Your task to perform on an android device: Clear all items from cart on costco.com. Add "usb-c to usb-a" to the cart on costco.com, then select checkout. Image 0: 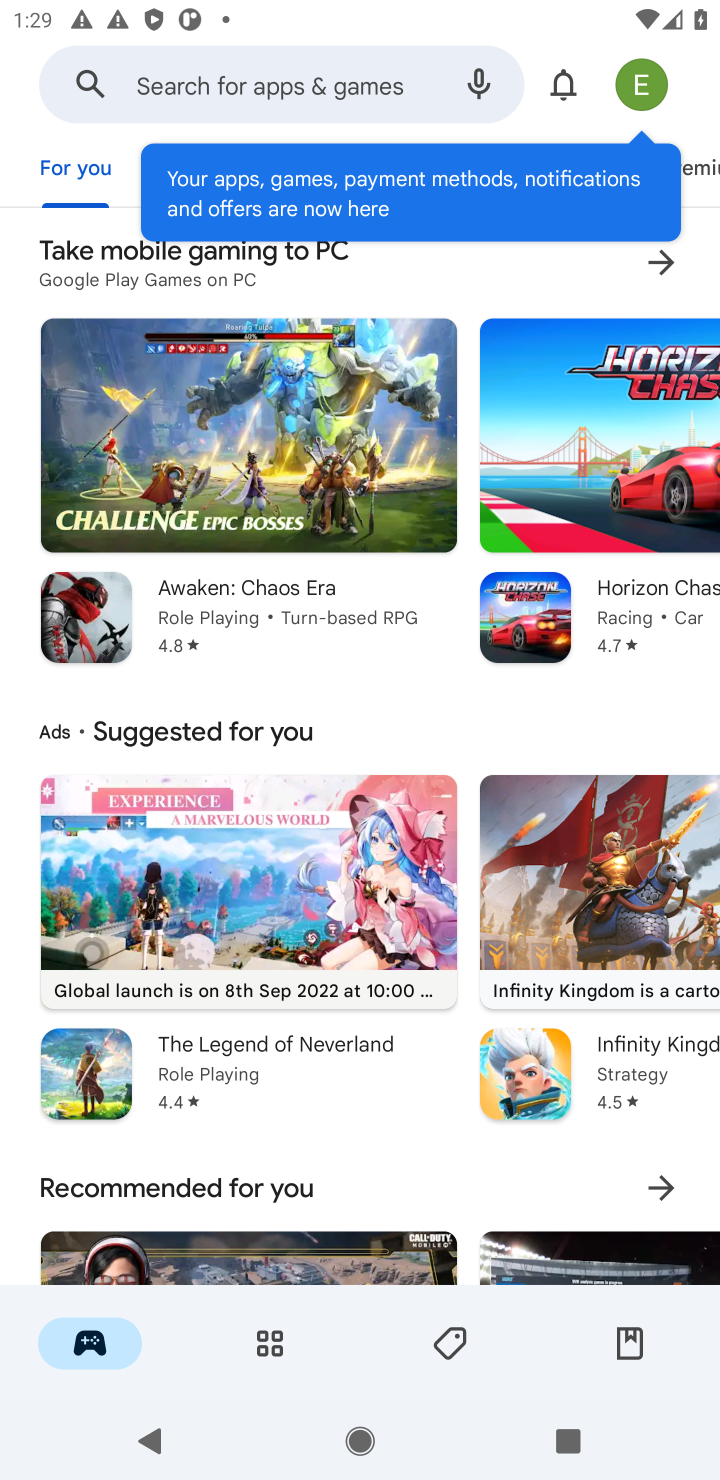
Step 0: press home button
Your task to perform on an android device: Clear all items from cart on costco.com. Add "usb-c to usb-a" to the cart on costco.com, then select checkout. Image 1: 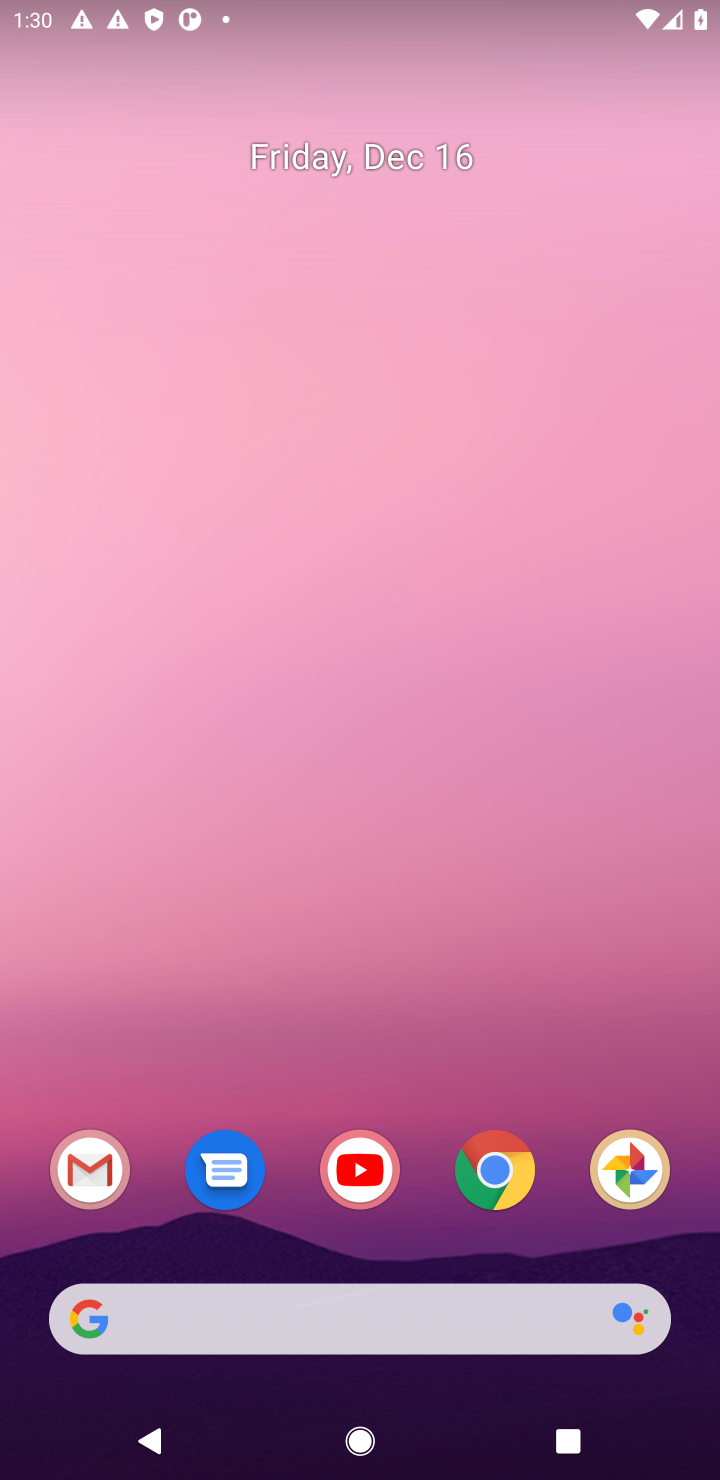
Step 1: click (500, 1185)
Your task to perform on an android device: Clear all items from cart on costco.com. Add "usb-c to usb-a" to the cart on costco.com, then select checkout. Image 2: 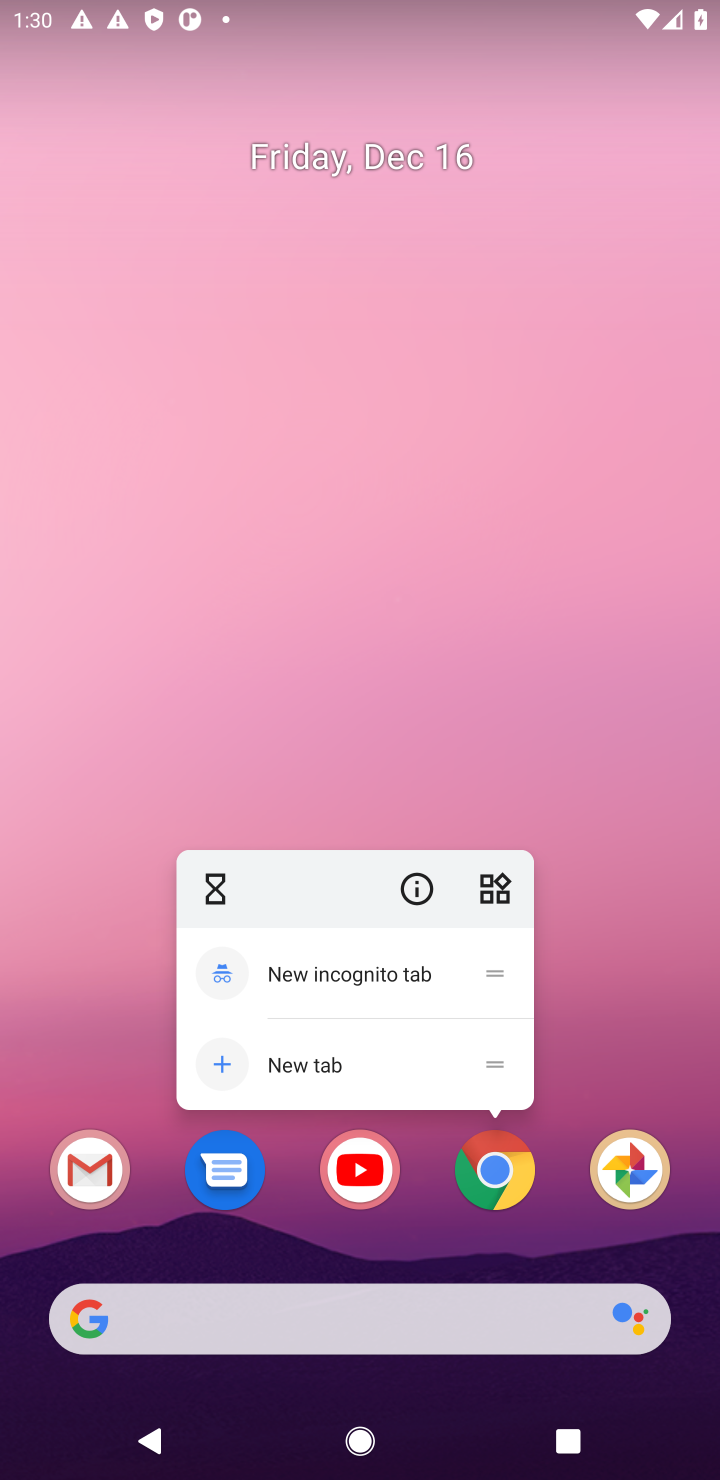
Step 2: click (500, 1185)
Your task to perform on an android device: Clear all items from cart on costco.com. Add "usb-c to usb-a" to the cart on costco.com, then select checkout. Image 3: 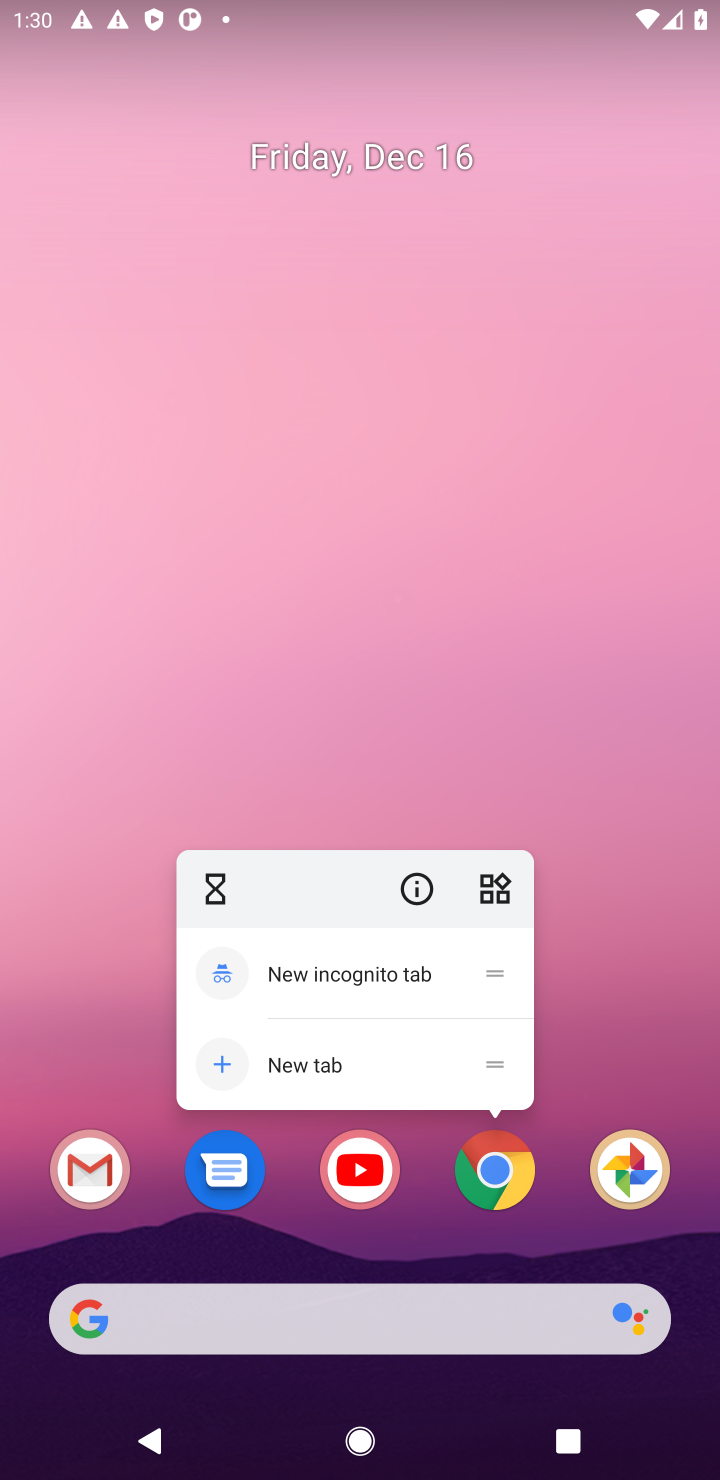
Step 3: click (504, 1177)
Your task to perform on an android device: Clear all items from cart on costco.com. Add "usb-c to usb-a" to the cart on costco.com, then select checkout. Image 4: 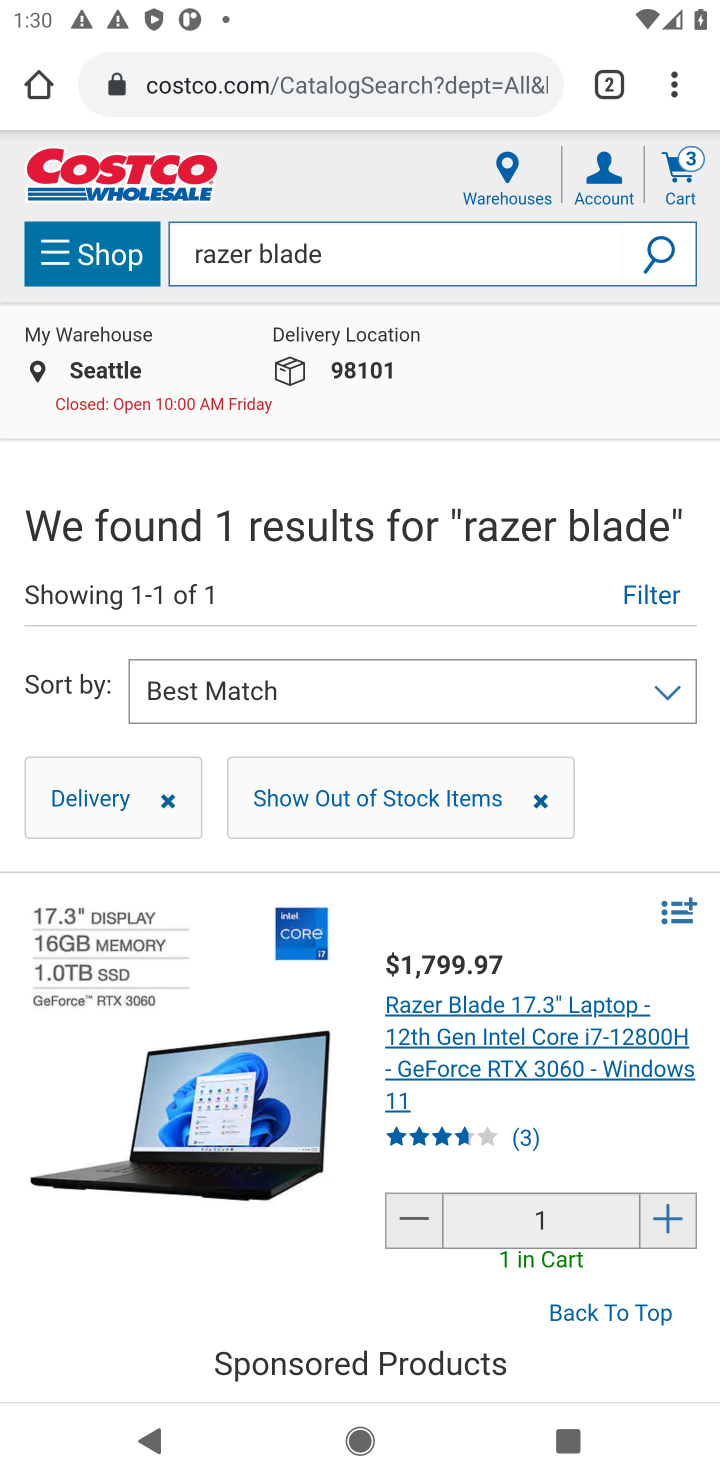
Step 4: click (682, 169)
Your task to perform on an android device: Clear all items from cart on costco.com. Add "usb-c to usb-a" to the cart on costco.com, then select checkout. Image 5: 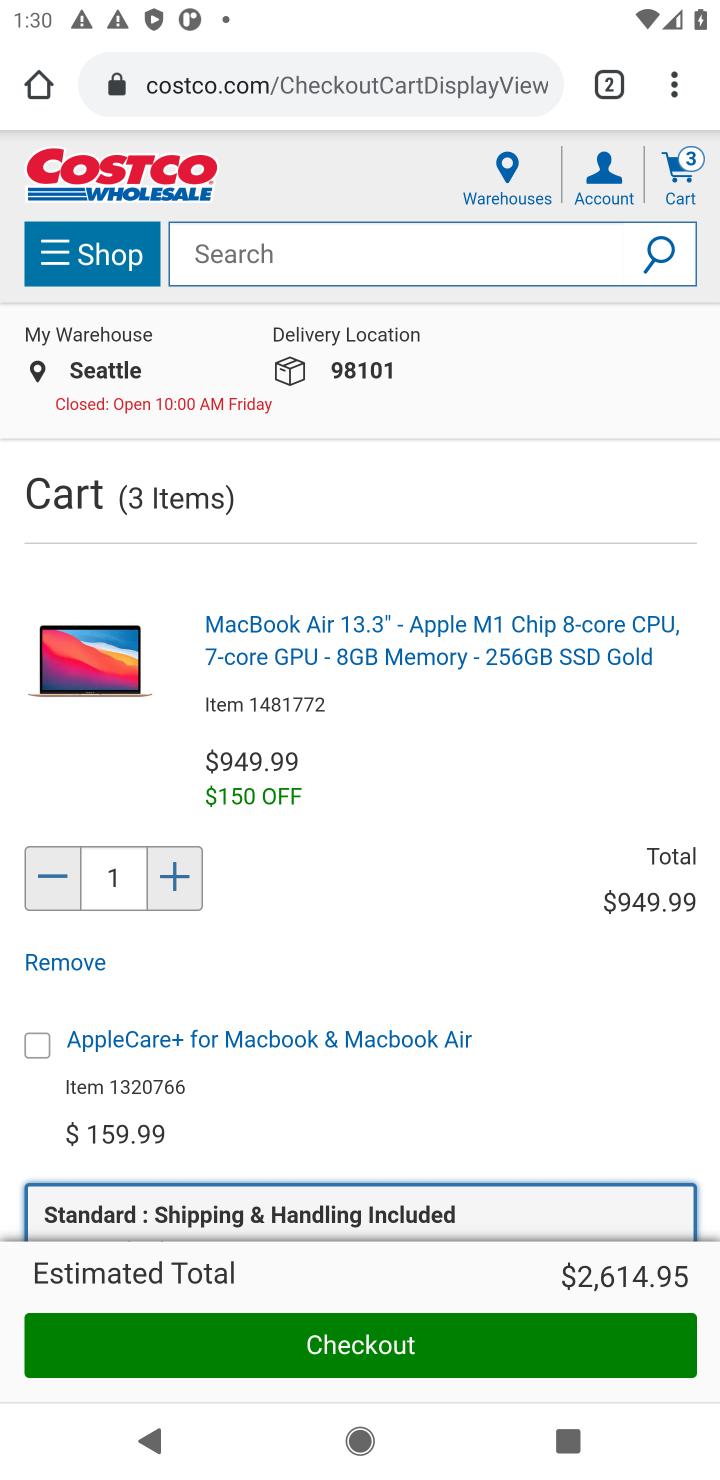
Step 5: drag from (490, 1017) to (504, 436)
Your task to perform on an android device: Clear all items from cart on costco.com. Add "usb-c to usb-a" to the cart on costco.com, then select checkout. Image 6: 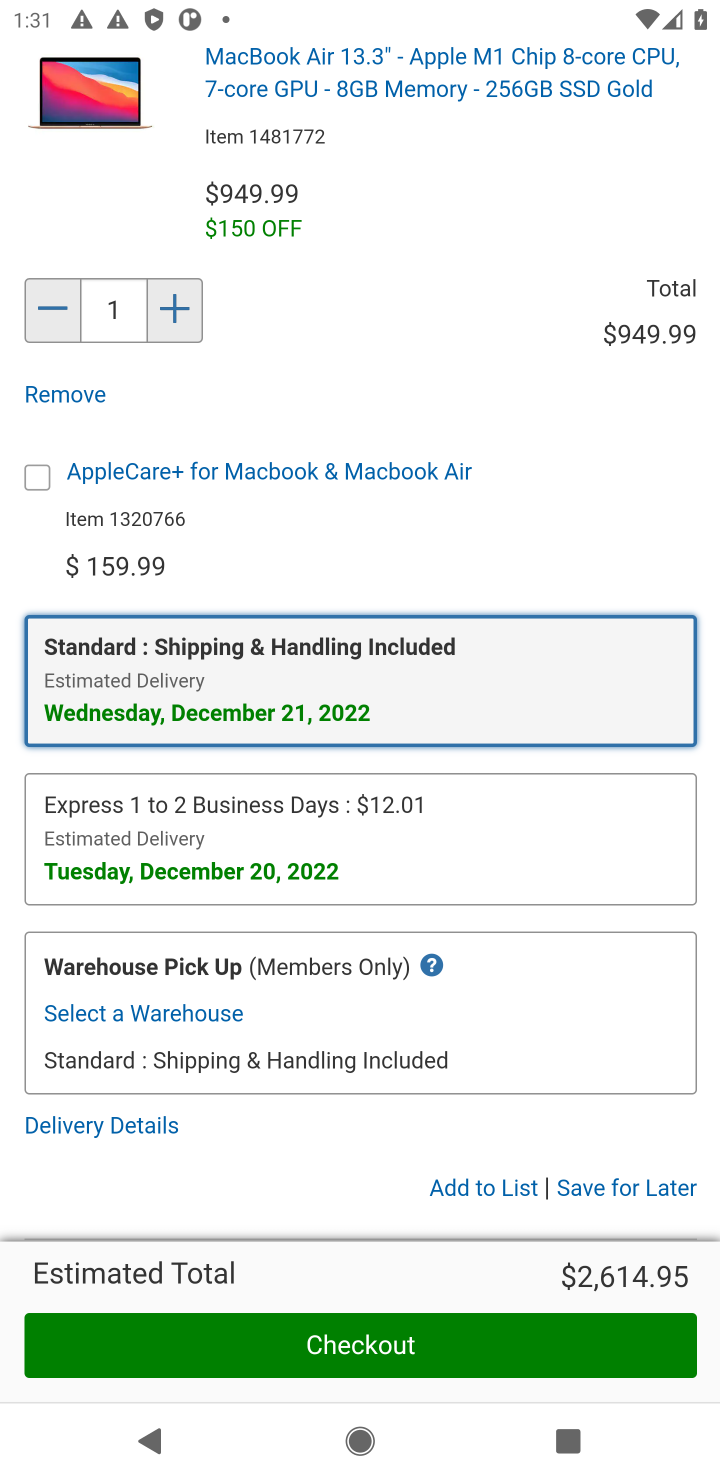
Step 6: click (591, 1188)
Your task to perform on an android device: Clear all items from cart on costco.com. Add "usb-c to usb-a" to the cart on costco.com, then select checkout. Image 7: 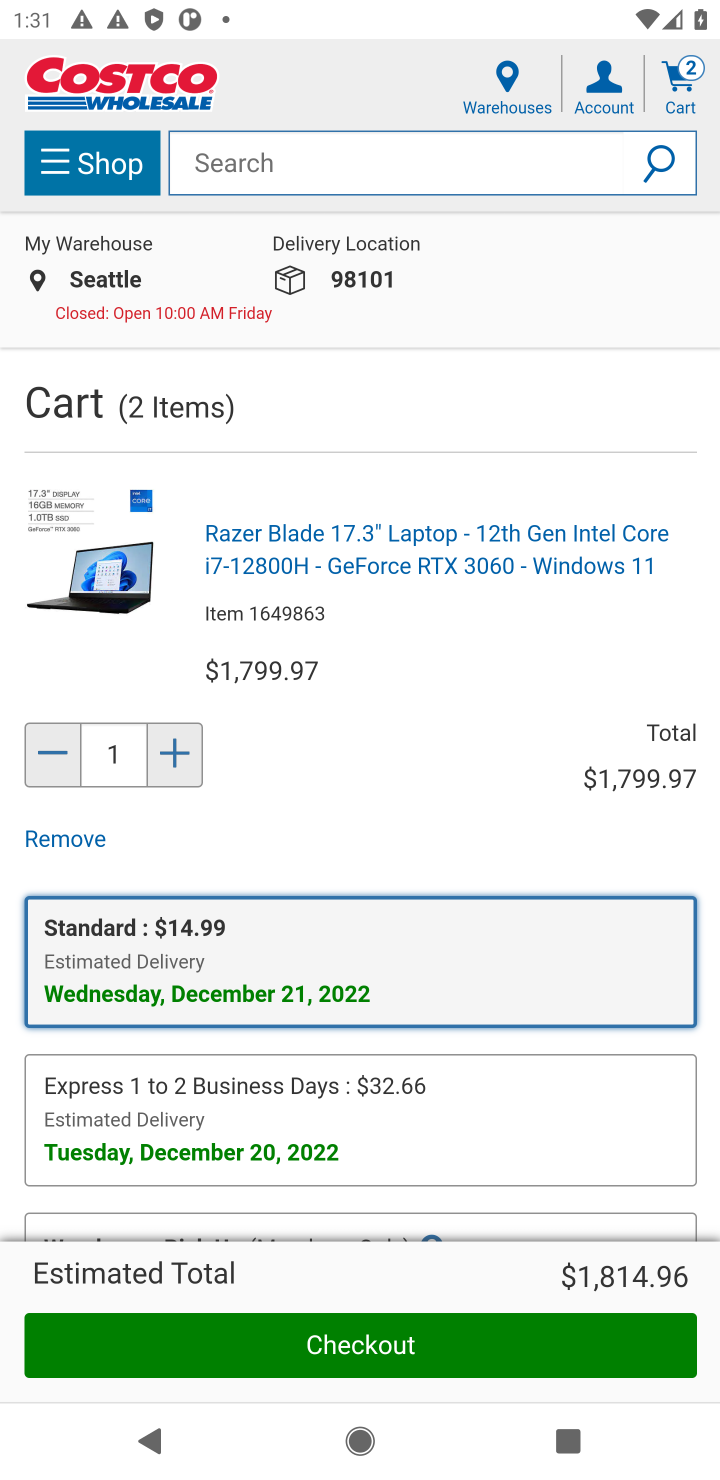
Step 7: drag from (496, 1134) to (475, 767)
Your task to perform on an android device: Clear all items from cart on costco.com. Add "usb-c to usb-a" to the cart on costco.com, then select checkout. Image 8: 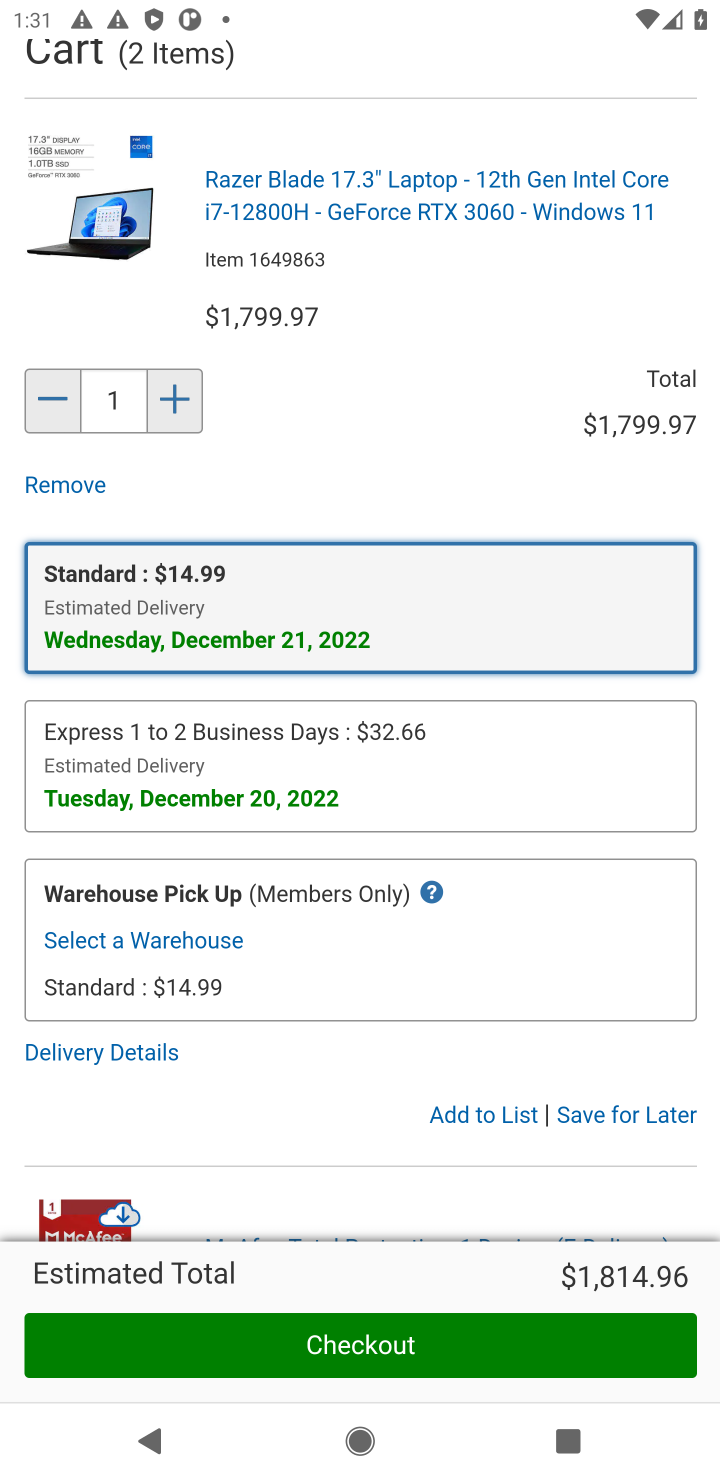
Step 8: click (615, 1112)
Your task to perform on an android device: Clear all items from cart on costco.com. Add "usb-c to usb-a" to the cart on costco.com, then select checkout. Image 9: 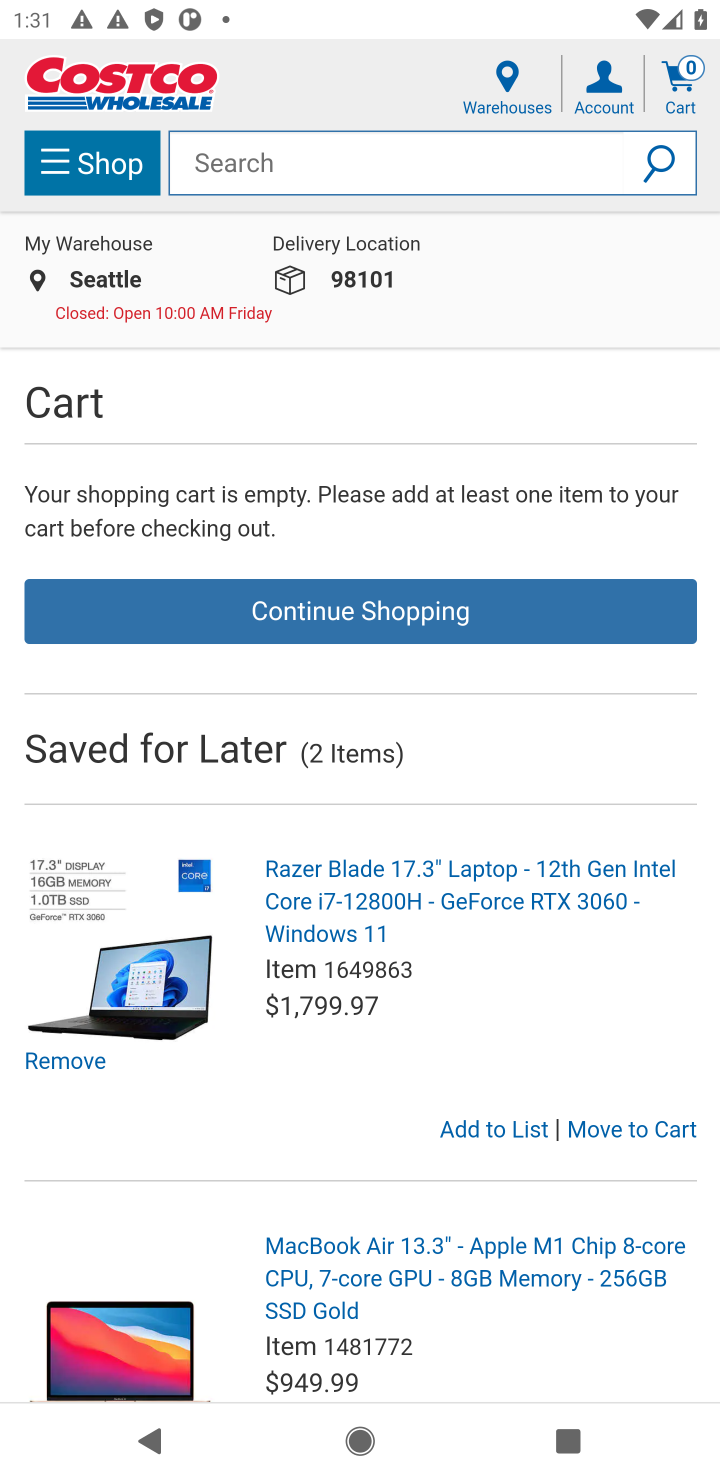
Step 9: click (293, 159)
Your task to perform on an android device: Clear all items from cart on costco.com. Add "usb-c to usb-a" to the cart on costco.com, then select checkout. Image 10: 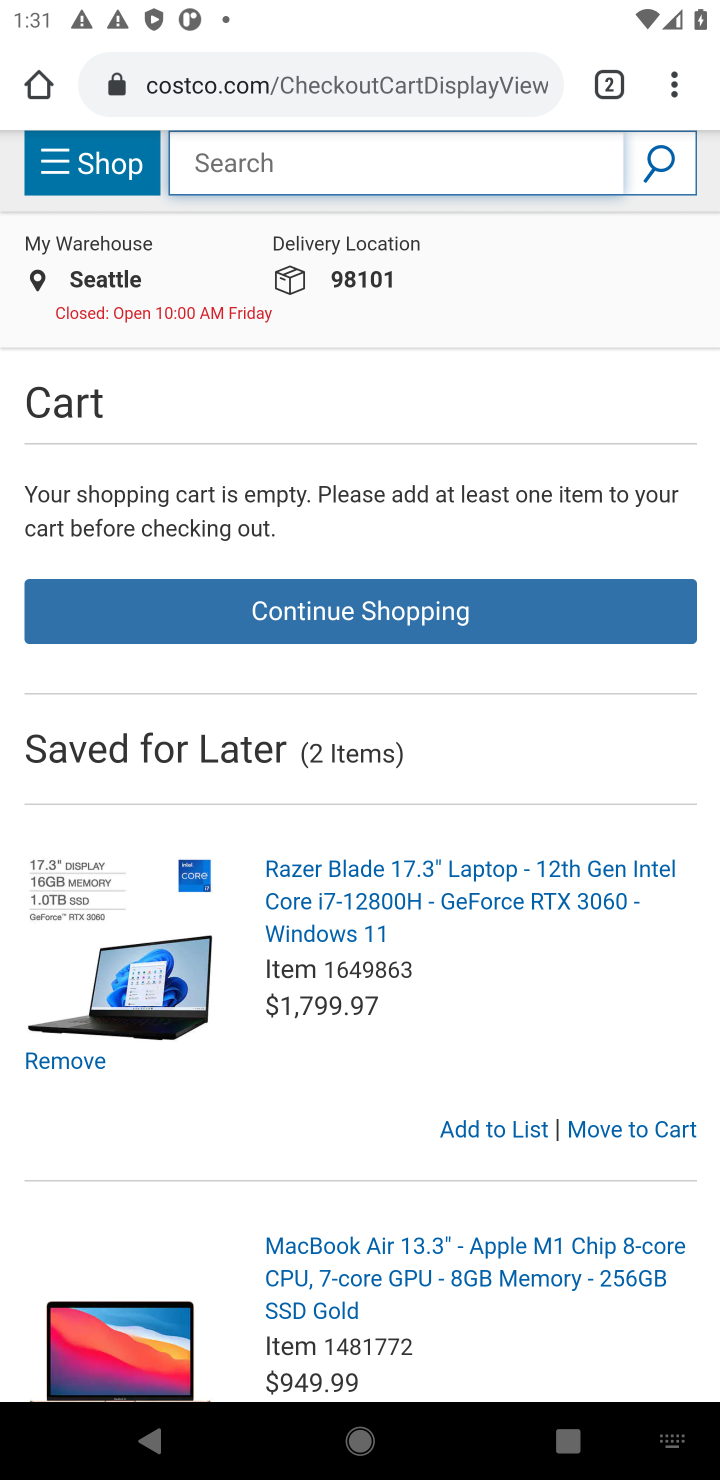
Step 10: type "usb-c to usb-a"
Your task to perform on an android device: Clear all items from cart on costco.com. Add "usb-c to usb-a" to the cart on costco.com, then select checkout. Image 11: 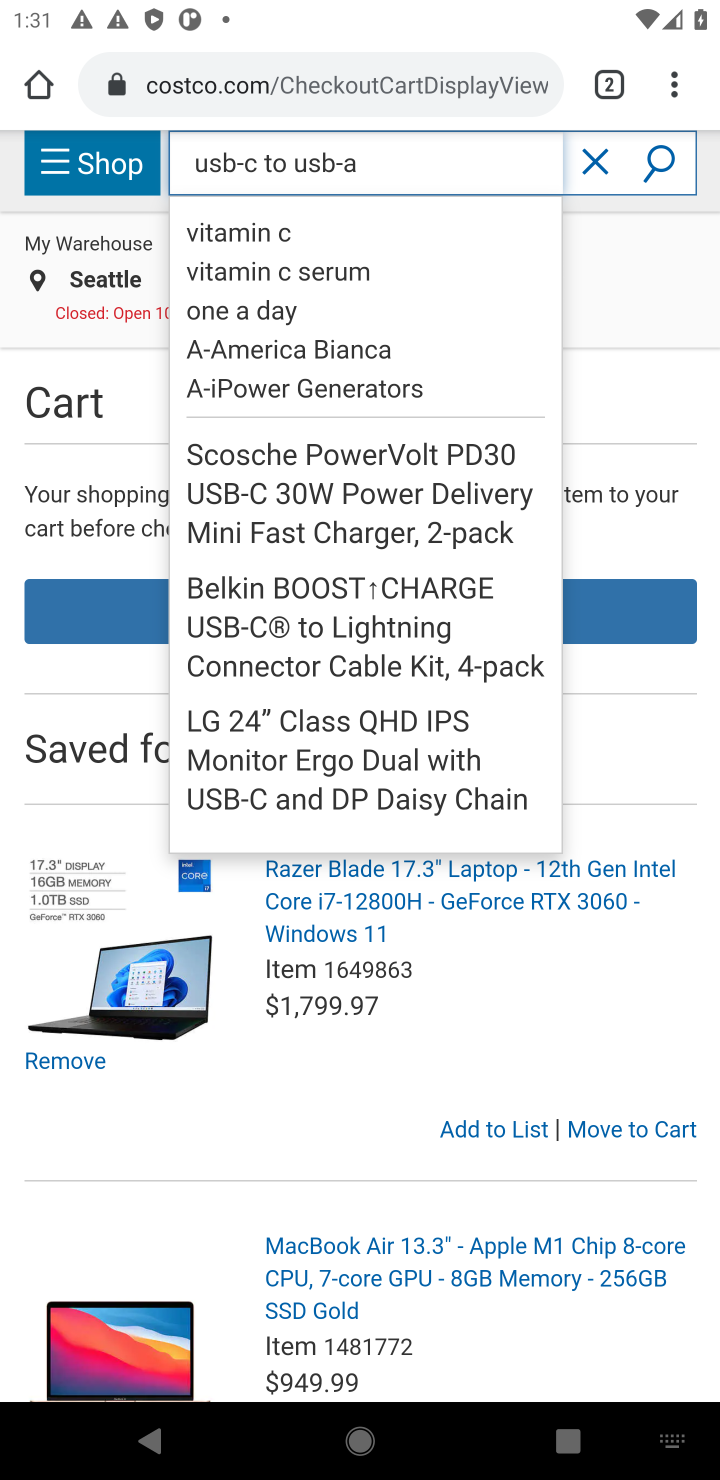
Step 11: click (662, 164)
Your task to perform on an android device: Clear all items from cart on costco.com. Add "usb-c to usb-a" to the cart on costco.com, then select checkout. Image 12: 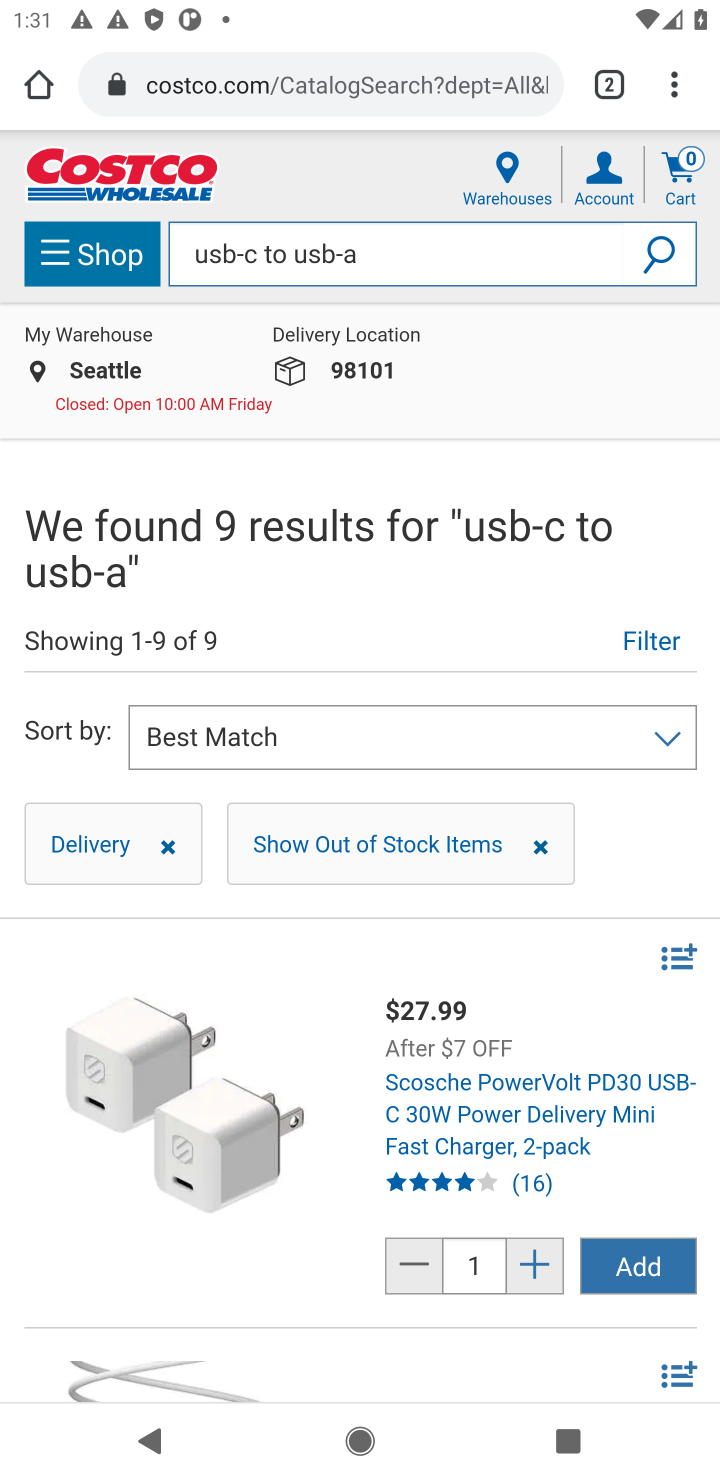
Step 12: drag from (266, 1075) to (272, 714)
Your task to perform on an android device: Clear all items from cart on costco.com. Add "usb-c to usb-a" to the cart on costco.com, then select checkout. Image 13: 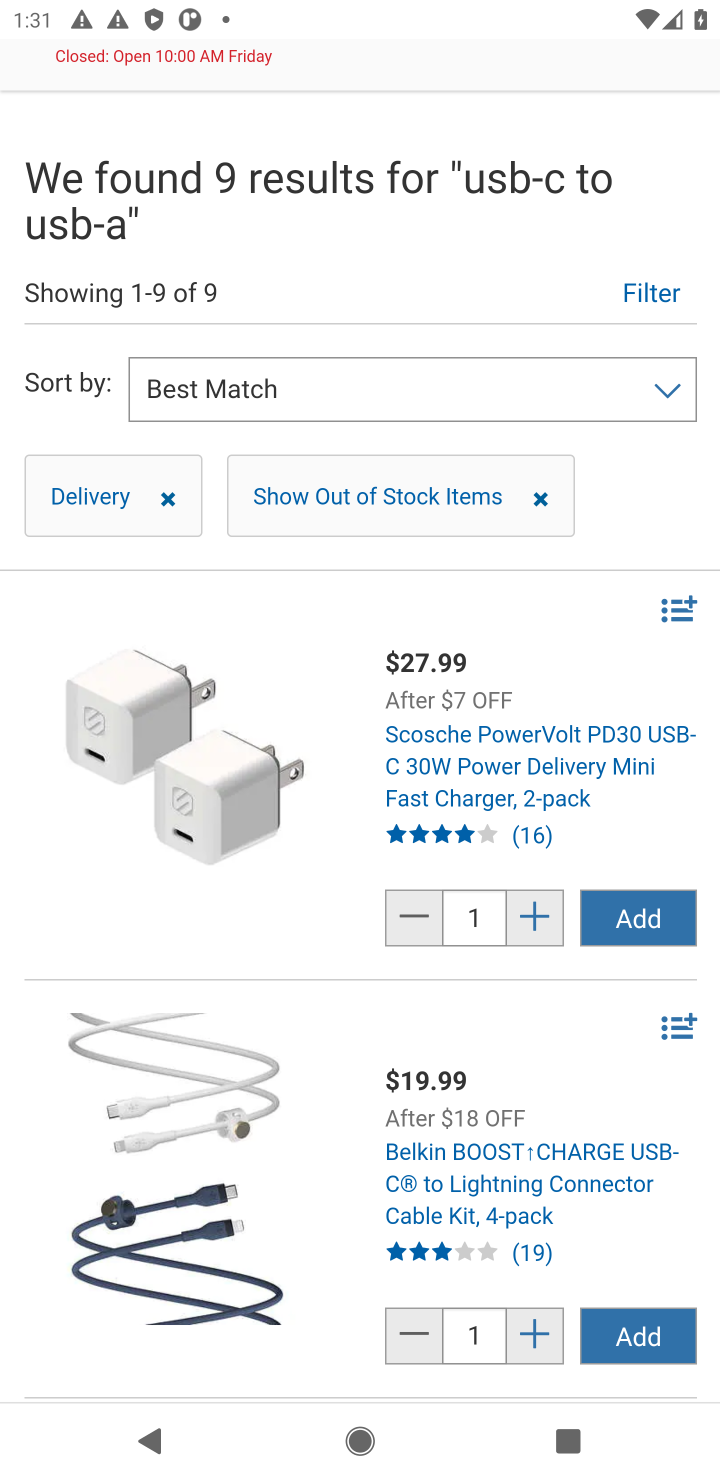
Step 13: drag from (251, 1081) to (251, 543)
Your task to perform on an android device: Clear all items from cart on costco.com. Add "usb-c to usb-a" to the cart on costco.com, then select checkout. Image 14: 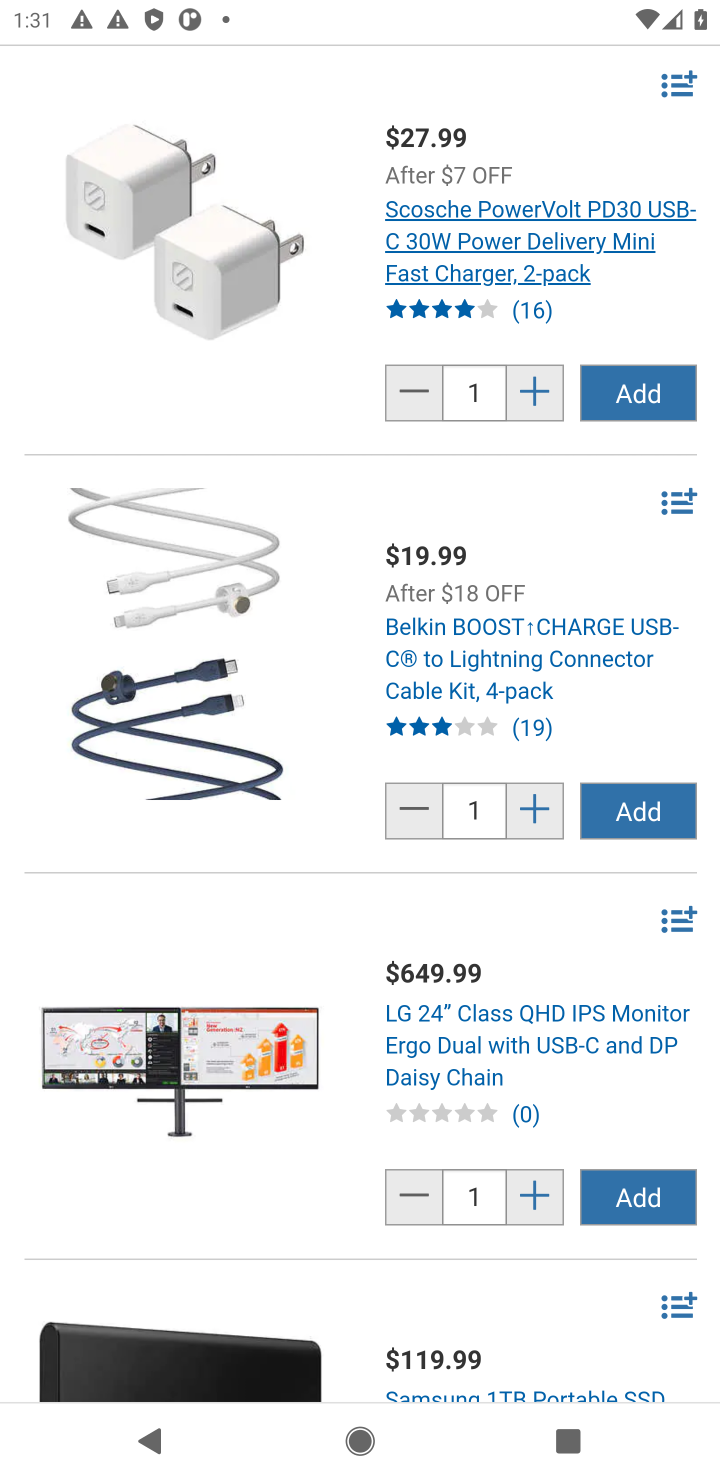
Step 14: drag from (234, 938) to (215, 613)
Your task to perform on an android device: Clear all items from cart on costco.com. Add "usb-c to usb-a" to the cart on costco.com, then select checkout. Image 15: 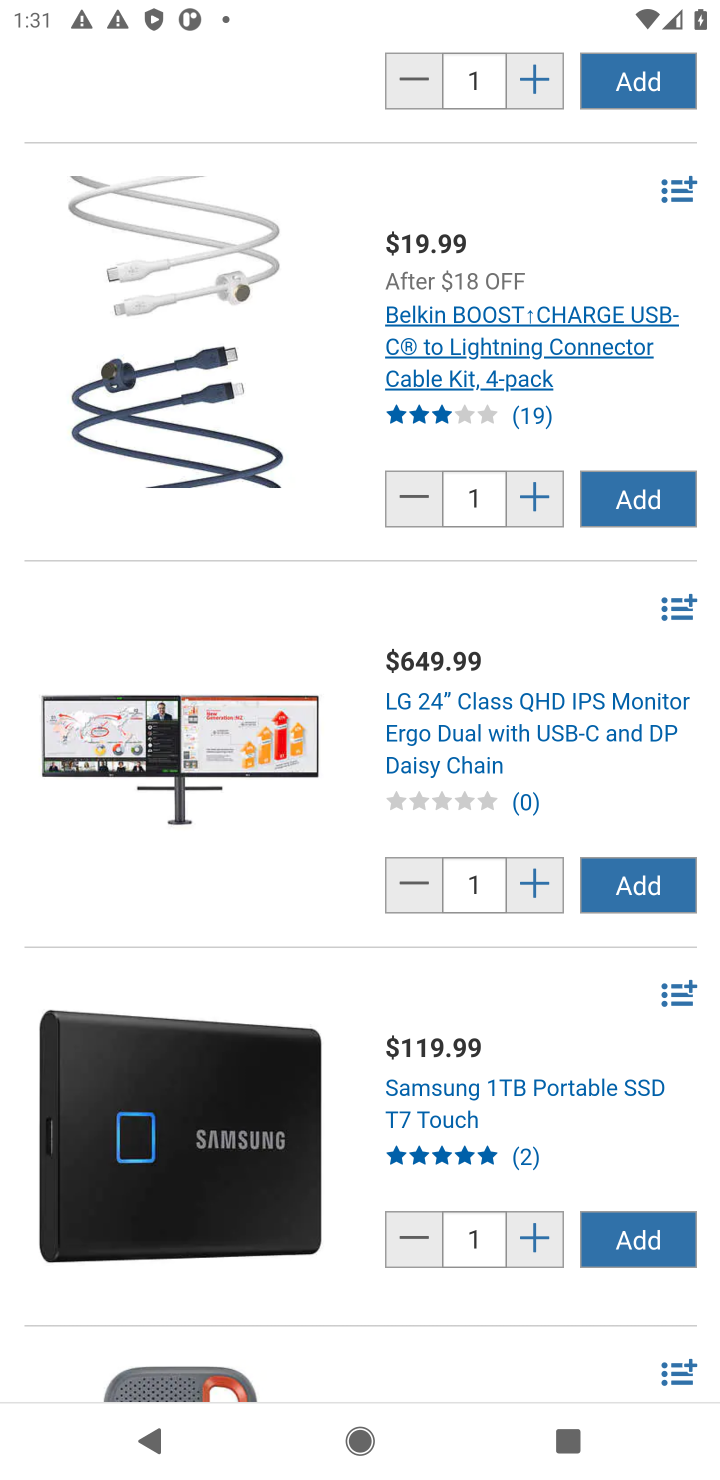
Step 15: drag from (219, 1037) to (220, 488)
Your task to perform on an android device: Clear all items from cart on costco.com. Add "usb-c to usb-a" to the cart on costco.com, then select checkout. Image 16: 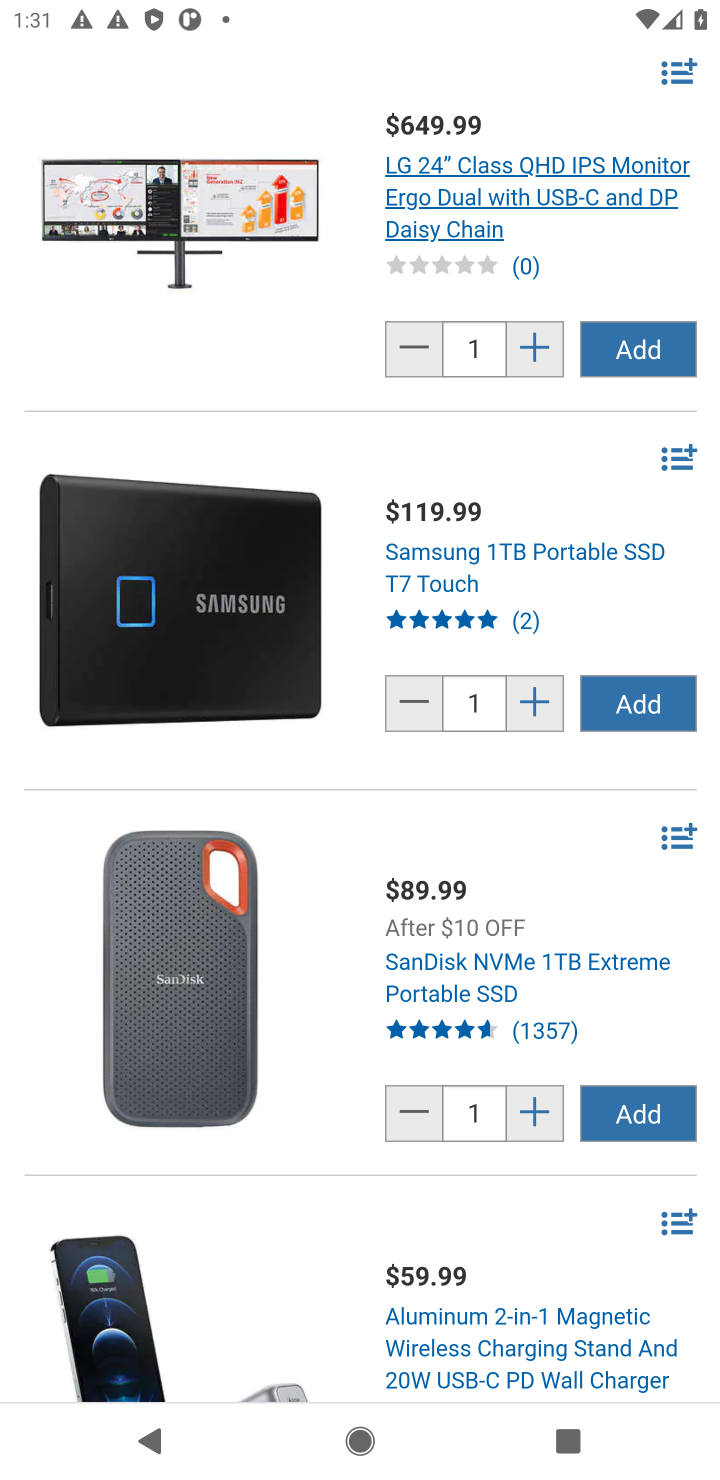
Step 16: drag from (209, 1092) to (214, 464)
Your task to perform on an android device: Clear all items from cart on costco.com. Add "usb-c to usb-a" to the cart on costco.com, then select checkout. Image 17: 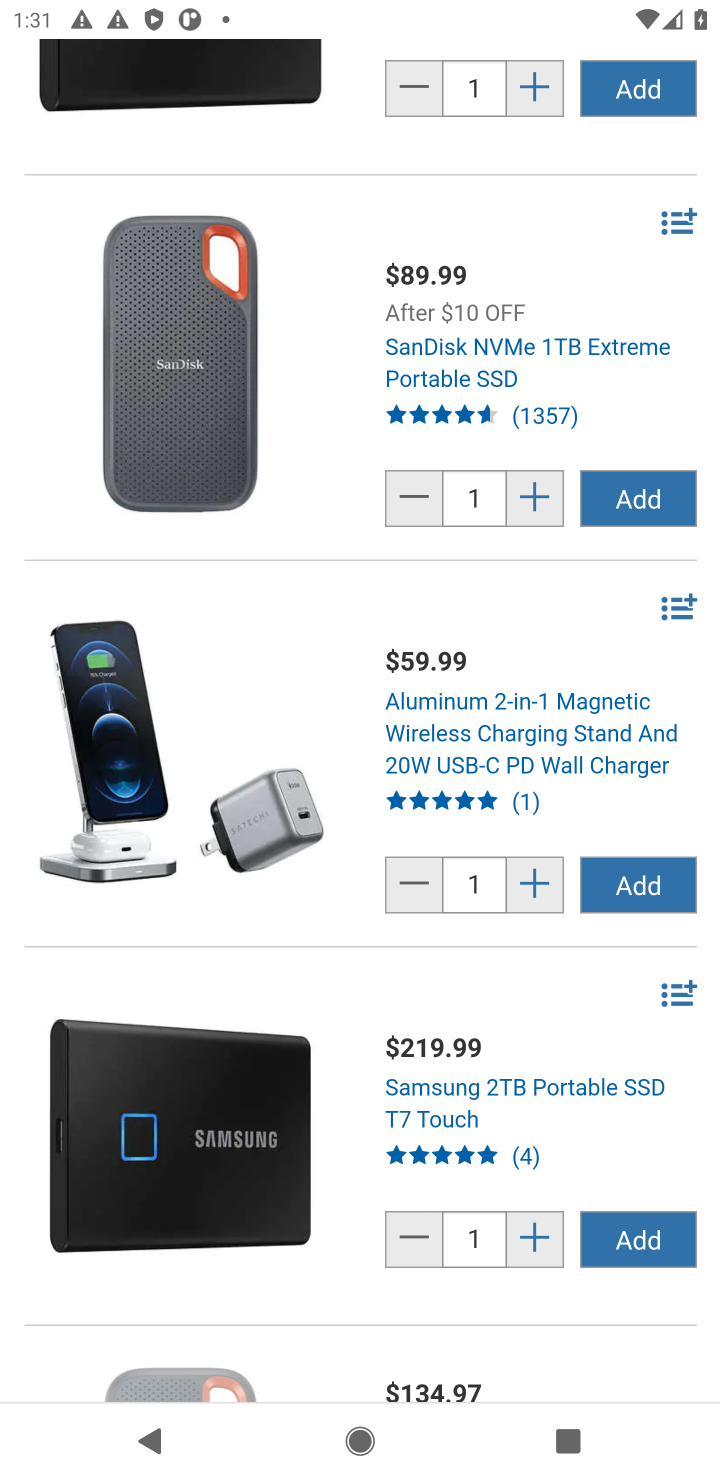
Step 17: drag from (226, 1025) to (215, 506)
Your task to perform on an android device: Clear all items from cart on costco.com. Add "usb-c to usb-a" to the cart on costco.com, then select checkout. Image 18: 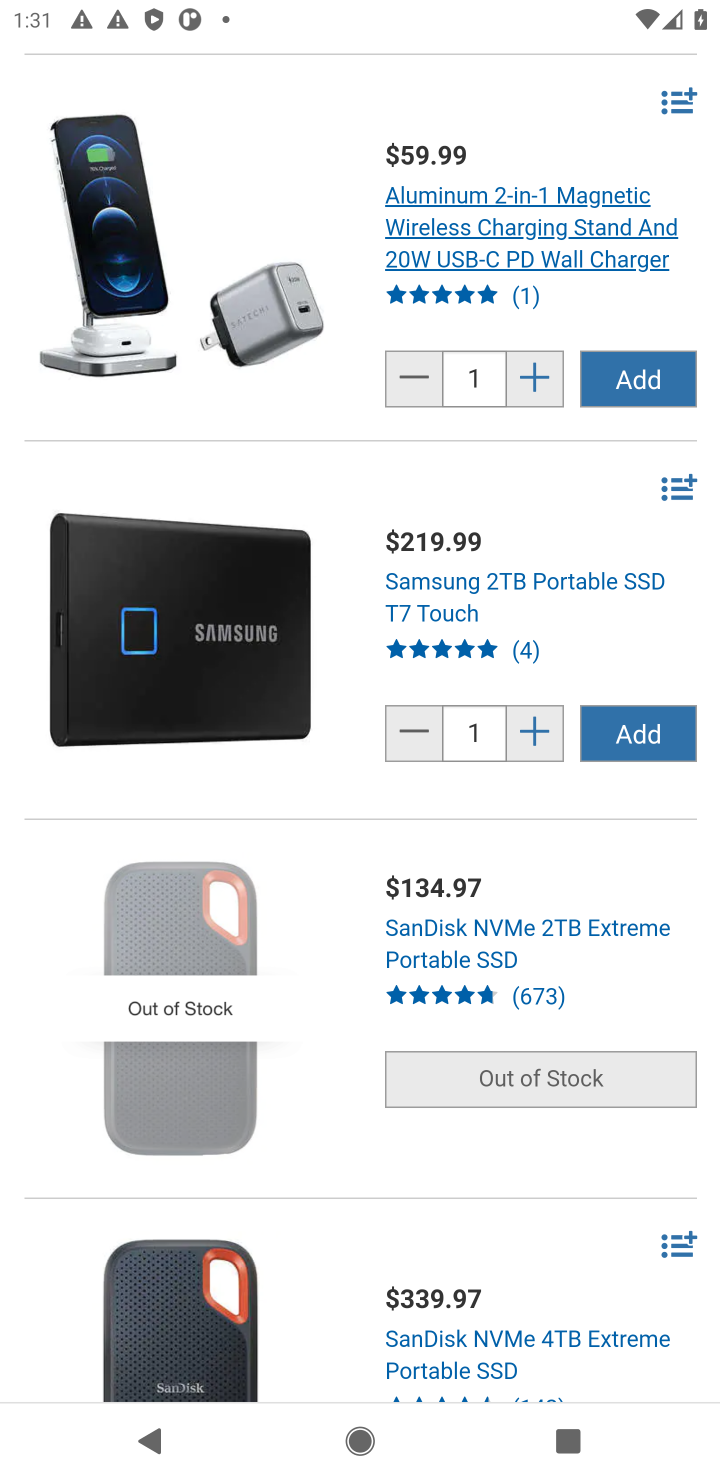
Step 18: drag from (226, 986) to (237, 414)
Your task to perform on an android device: Clear all items from cart on costco.com. Add "usb-c to usb-a" to the cart on costco.com, then select checkout. Image 19: 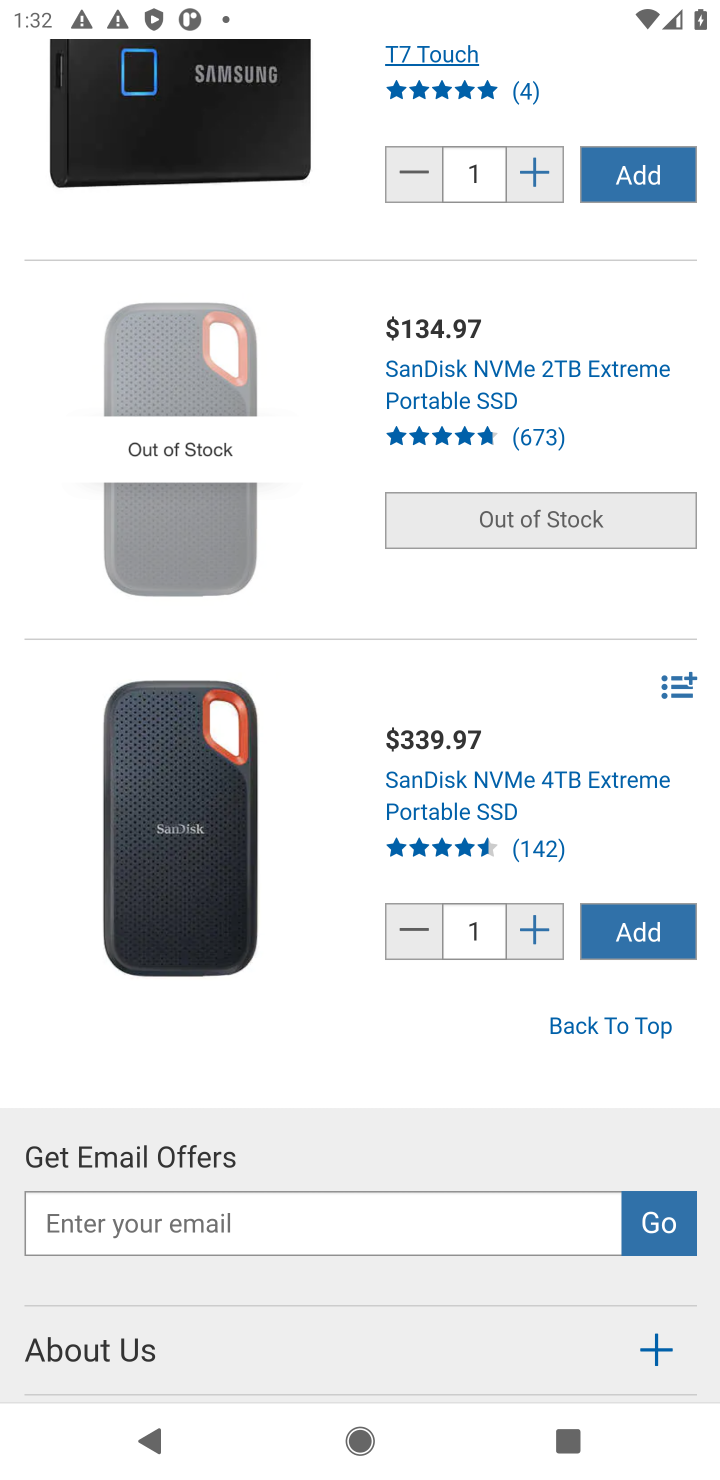
Step 19: drag from (201, 988) to (213, 335)
Your task to perform on an android device: Clear all items from cart on costco.com. Add "usb-c to usb-a" to the cart on costco.com, then select checkout. Image 20: 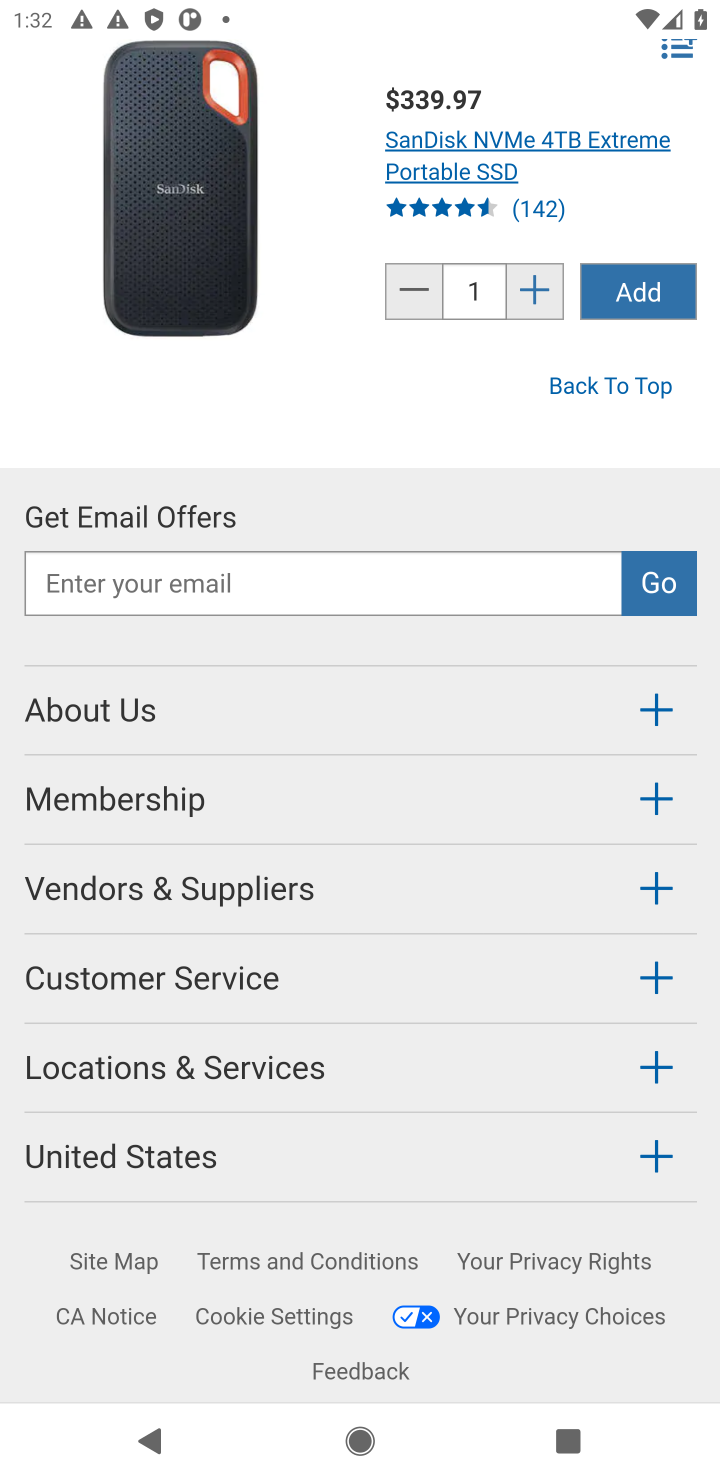
Step 20: drag from (185, 1067) to (168, 569)
Your task to perform on an android device: Clear all items from cart on costco.com. Add "usb-c to usb-a" to the cart on costco.com, then select checkout. Image 21: 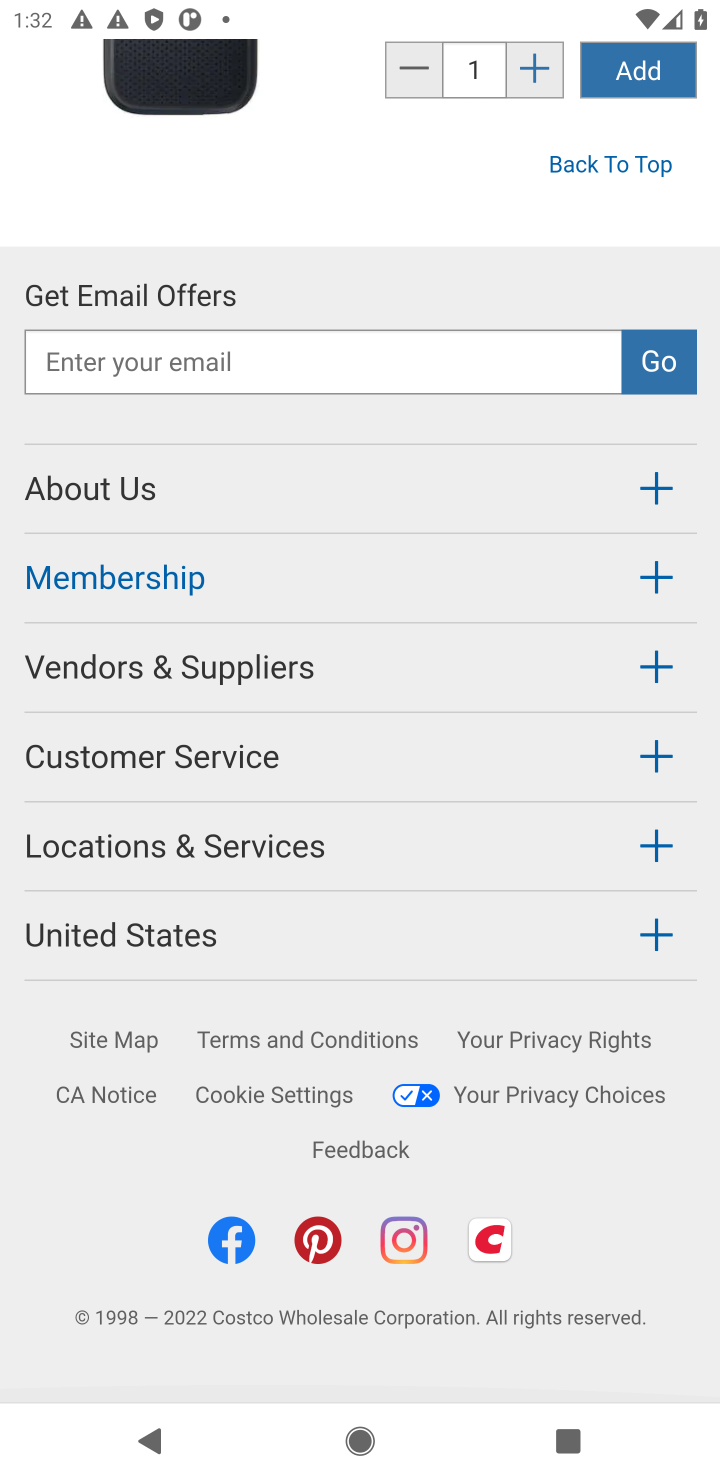
Step 21: drag from (168, 578) to (155, 1292)
Your task to perform on an android device: Clear all items from cart on costco.com. Add "usb-c to usb-a" to the cart on costco.com, then select checkout. Image 22: 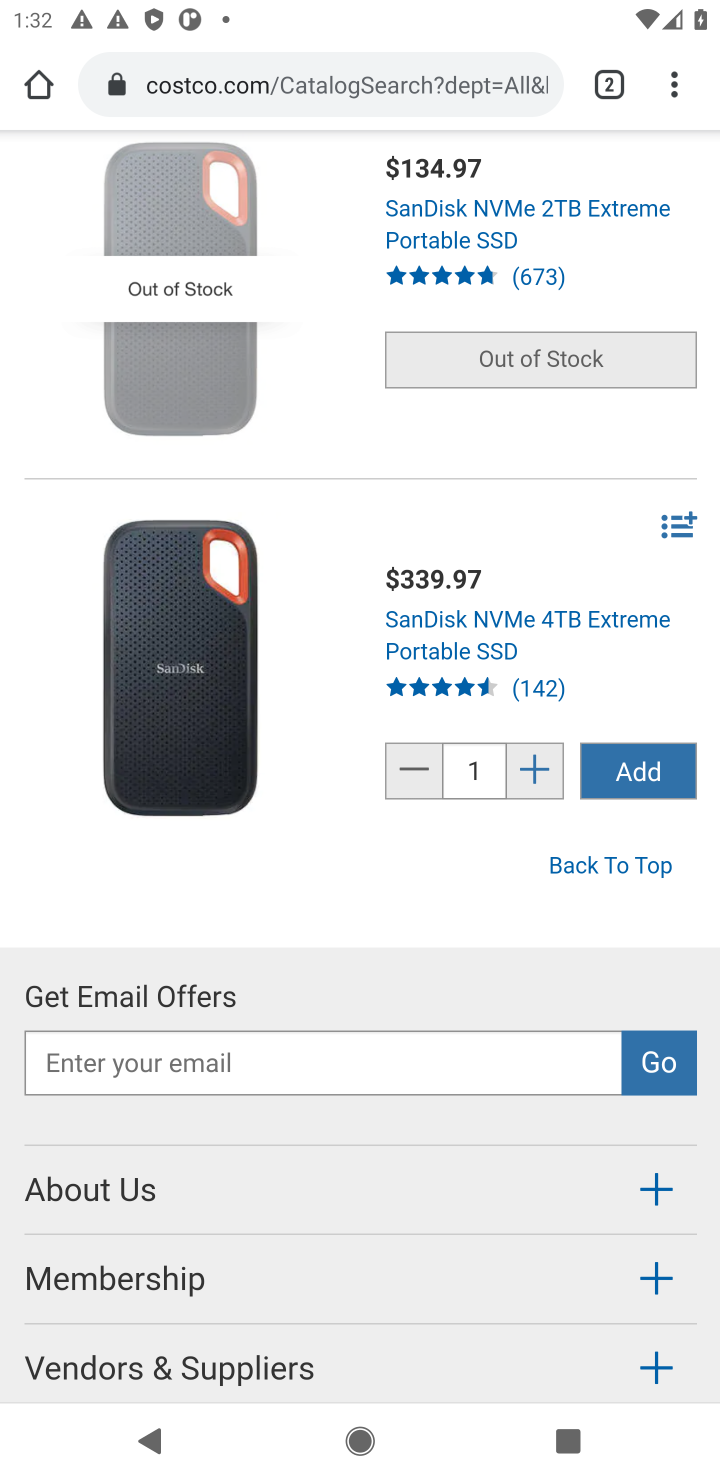
Step 22: drag from (198, 736) to (117, 1429)
Your task to perform on an android device: Clear all items from cart on costco.com. Add "usb-c to usb-a" to the cart on costco.com, then select checkout. Image 23: 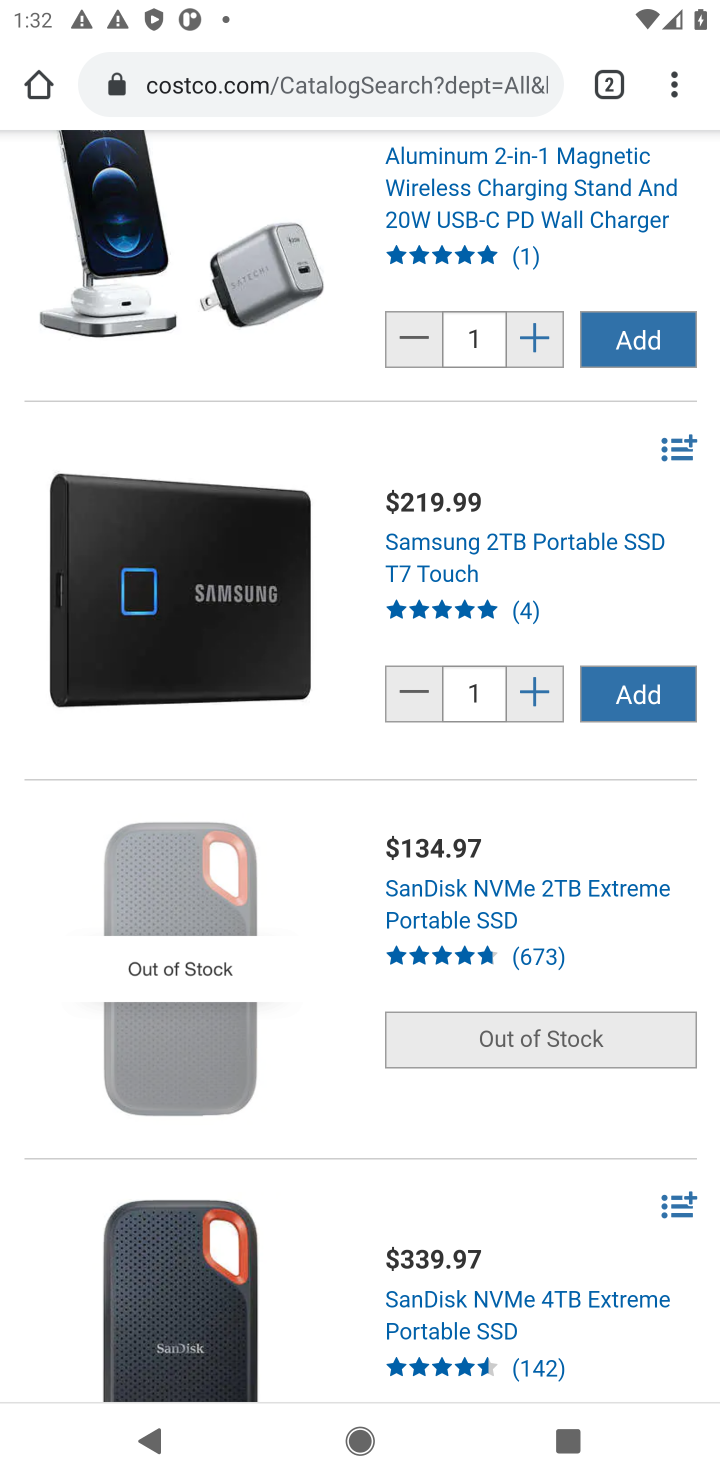
Step 23: drag from (193, 620) to (124, 1134)
Your task to perform on an android device: Clear all items from cart on costco.com. Add "usb-c to usb-a" to the cart on costco.com, then select checkout. Image 24: 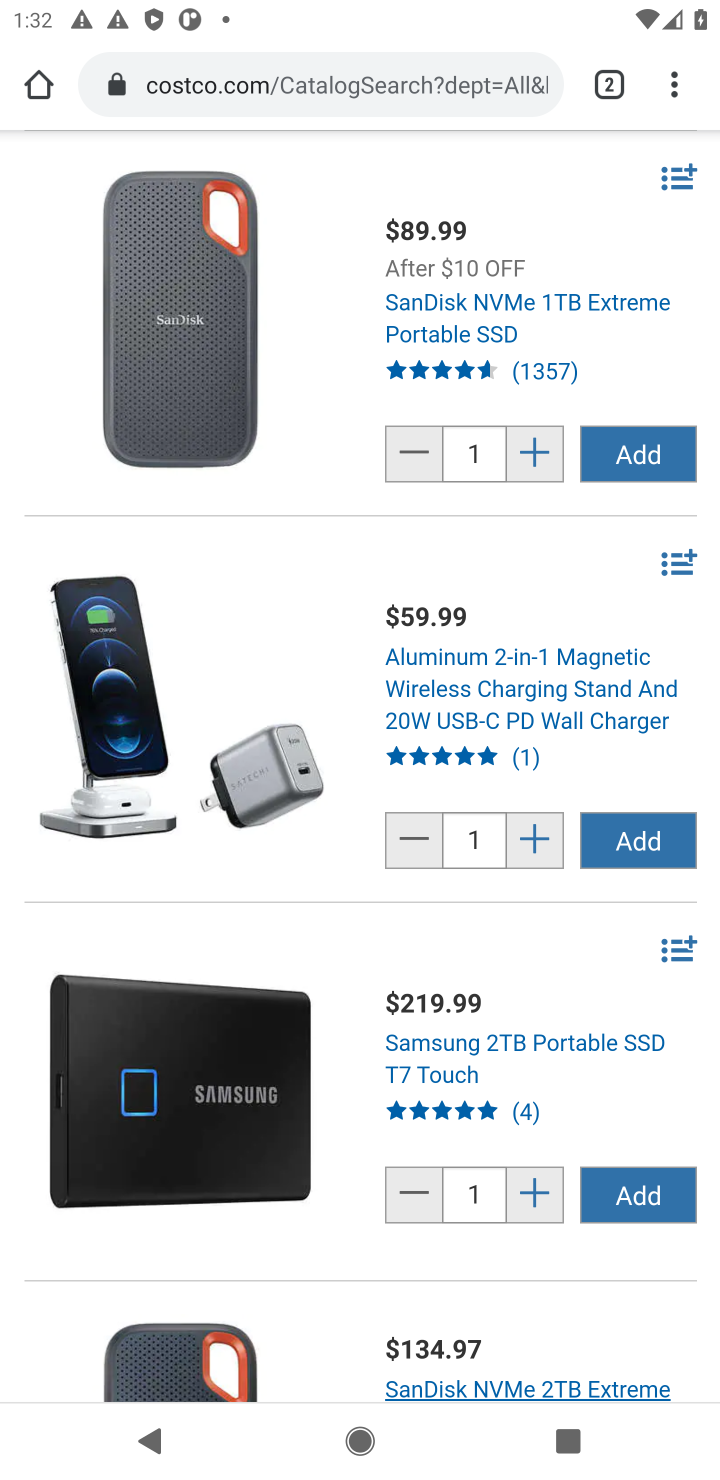
Step 24: click (477, 667)
Your task to perform on an android device: Clear all items from cart on costco.com. Add "usb-c to usb-a" to the cart on costco.com, then select checkout. Image 25: 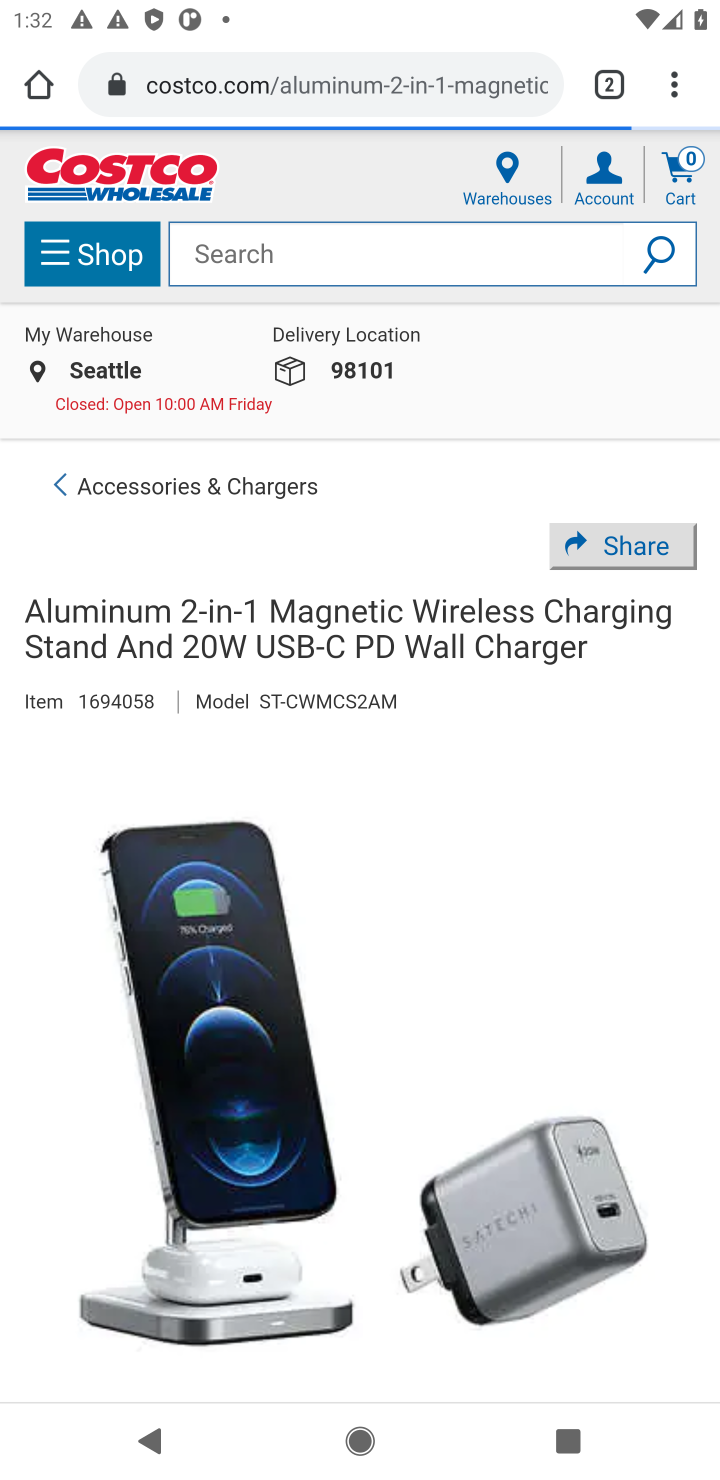
Step 25: task complete